Your task to perform on an android device: Is it going to rain today? Image 0: 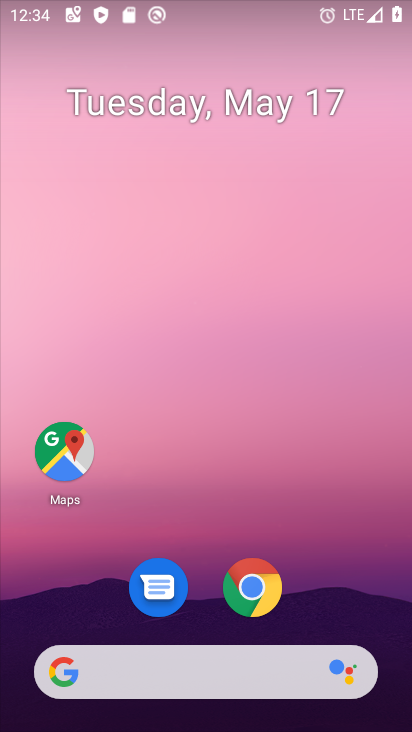
Step 0: drag from (361, 619) to (270, 83)
Your task to perform on an android device: Is it going to rain today? Image 1: 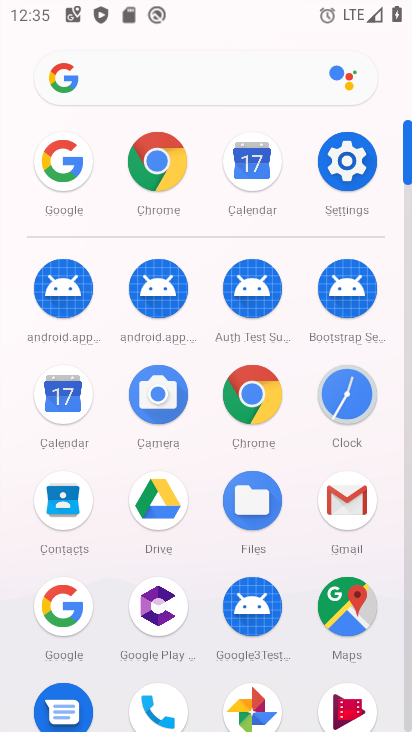
Step 1: click (68, 602)
Your task to perform on an android device: Is it going to rain today? Image 2: 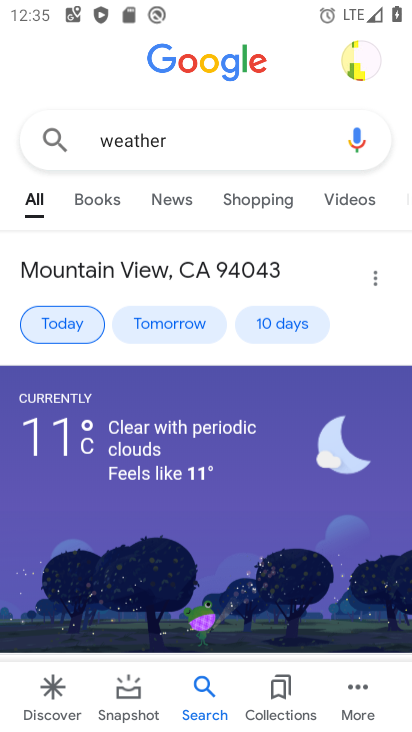
Step 2: press back button
Your task to perform on an android device: Is it going to rain today? Image 3: 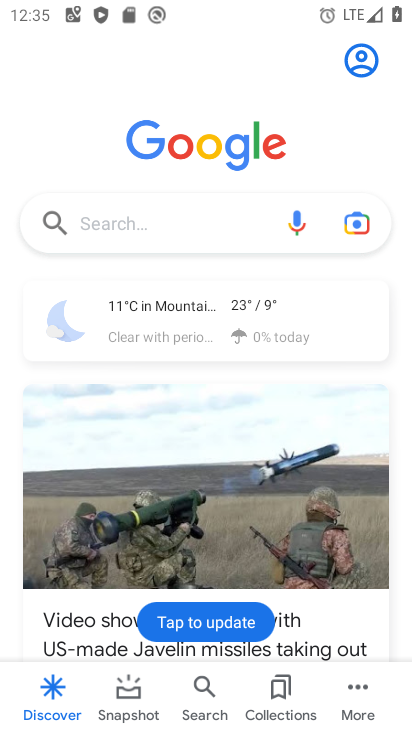
Step 3: click (136, 222)
Your task to perform on an android device: Is it going to rain today? Image 4: 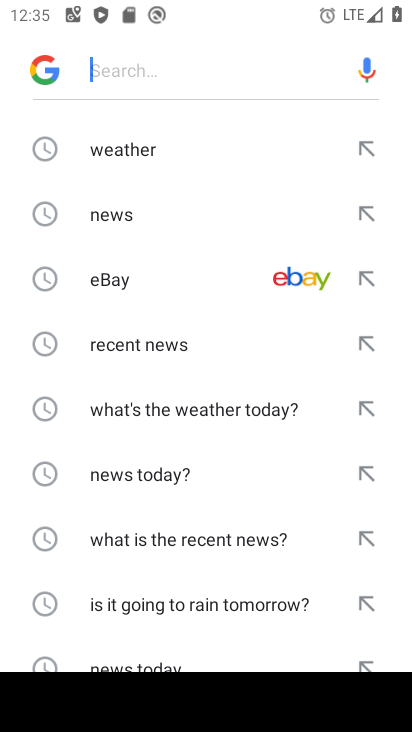
Step 4: drag from (191, 592) to (250, 255)
Your task to perform on an android device: Is it going to rain today? Image 5: 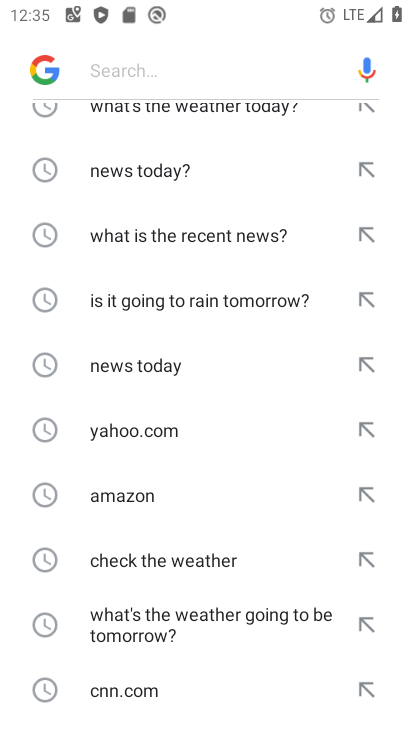
Step 5: drag from (216, 659) to (302, 206)
Your task to perform on an android device: Is it going to rain today? Image 6: 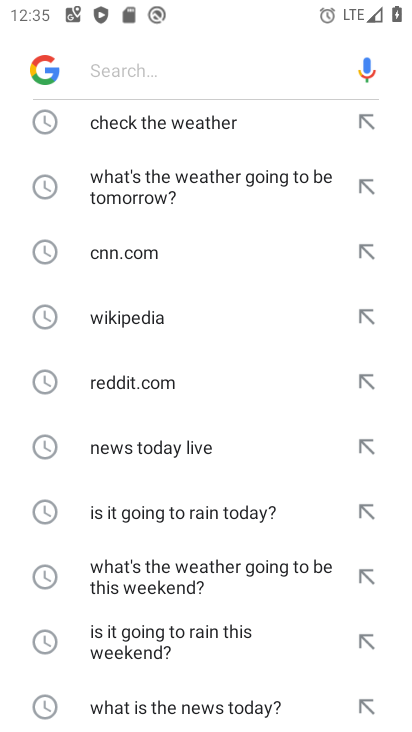
Step 6: click (216, 528)
Your task to perform on an android device: Is it going to rain today? Image 7: 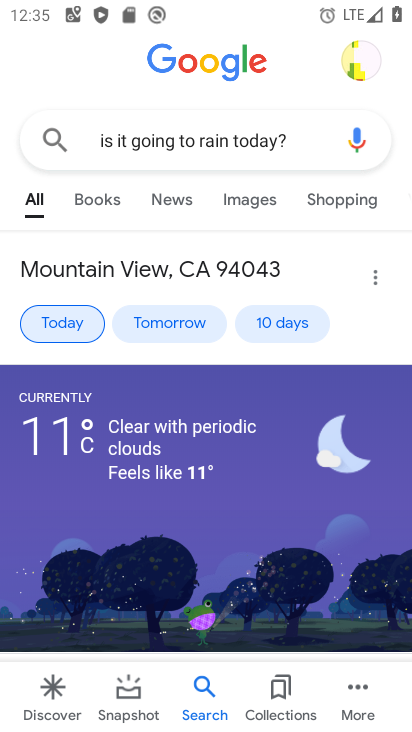
Step 7: task complete